Your task to perform on an android device: Go to Amazon Image 0: 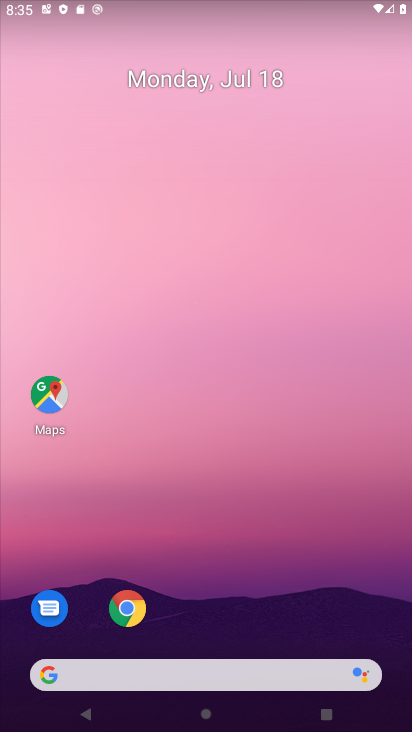
Step 0: drag from (229, 723) to (226, 146)
Your task to perform on an android device: Go to Amazon Image 1: 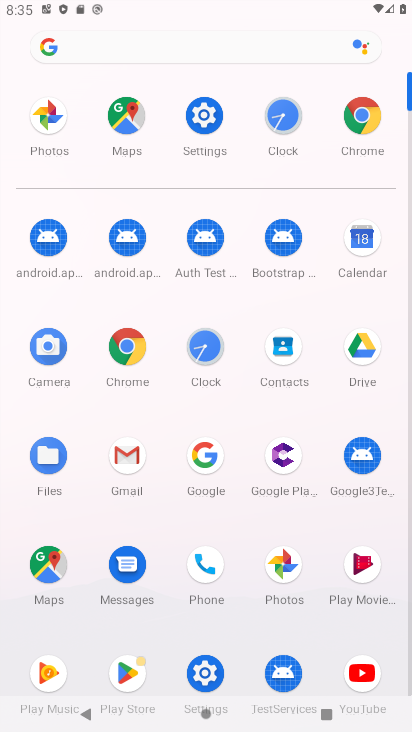
Step 1: click (126, 347)
Your task to perform on an android device: Go to Amazon Image 2: 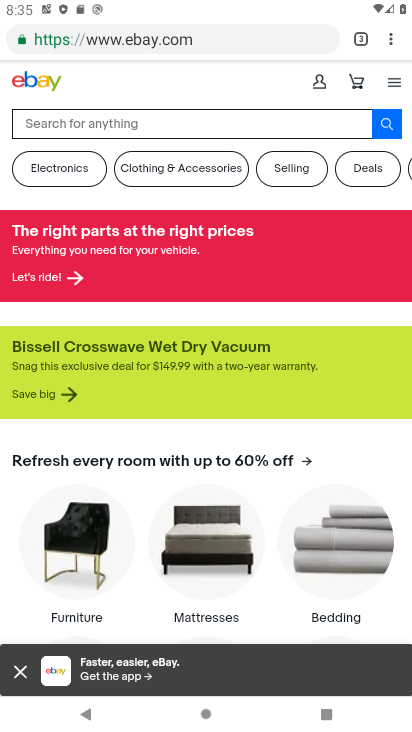
Step 2: click (392, 45)
Your task to perform on an android device: Go to Amazon Image 3: 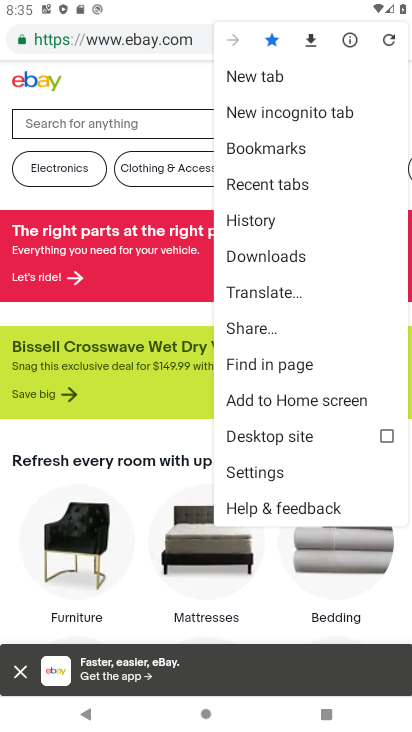
Step 3: click (257, 75)
Your task to perform on an android device: Go to Amazon Image 4: 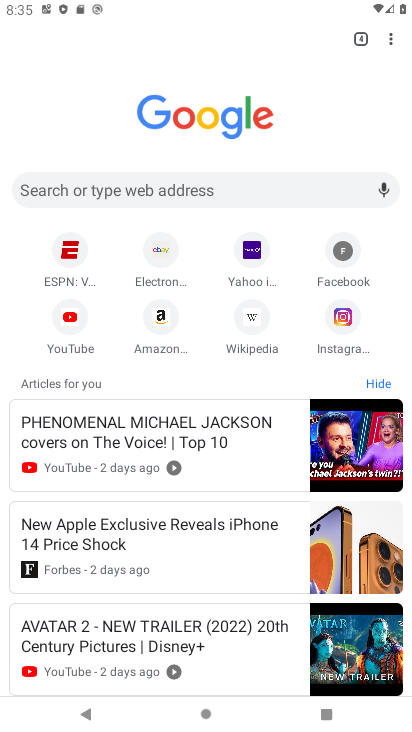
Step 4: click (163, 324)
Your task to perform on an android device: Go to Amazon Image 5: 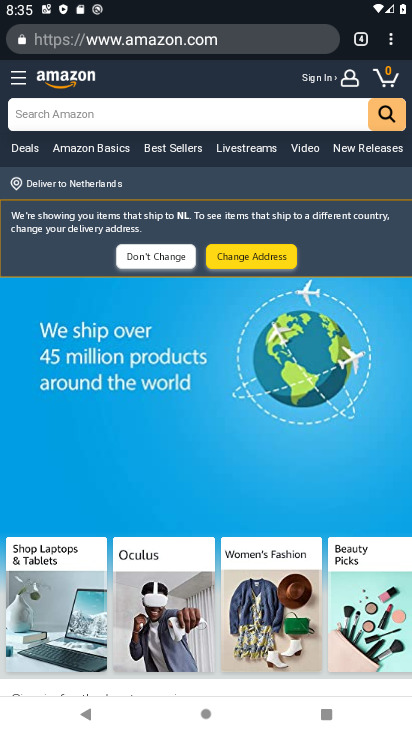
Step 5: task complete